Your task to perform on an android device: open app "The Home Depot" (install if not already installed) and go to login screen Image 0: 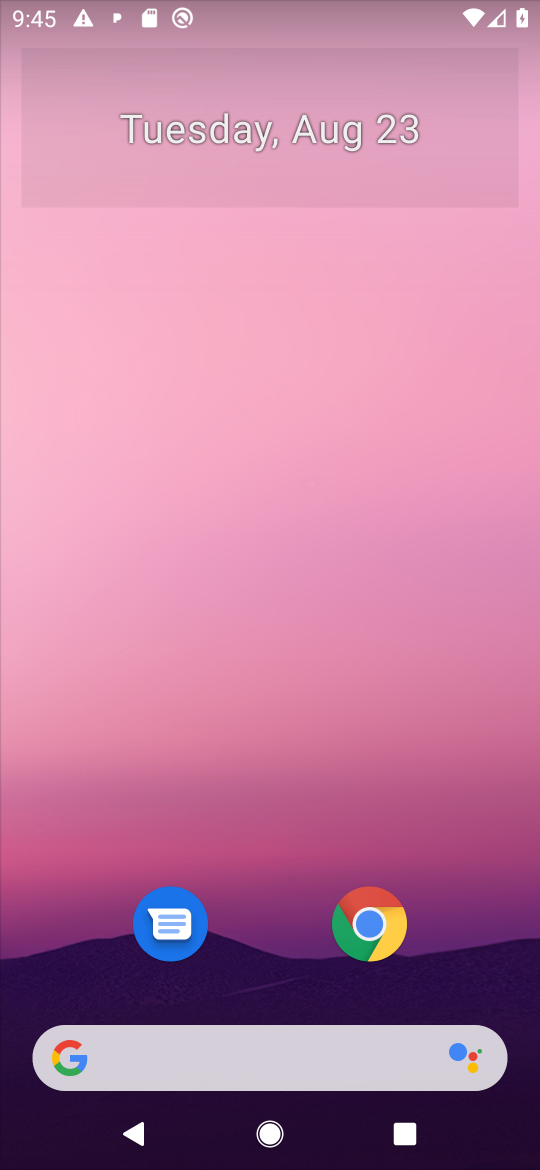
Step 0: press home button
Your task to perform on an android device: open app "The Home Depot" (install if not already installed) and go to login screen Image 1: 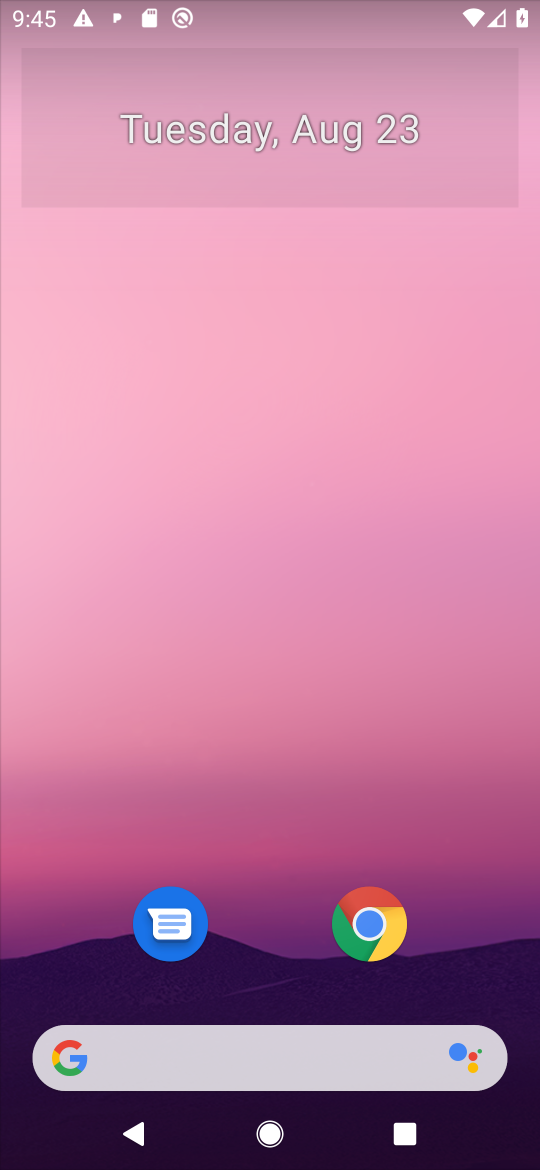
Step 1: drag from (465, 933) to (434, 172)
Your task to perform on an android device: open app "The Home Depot" (install if not already installed) and go to login screen Image 2: 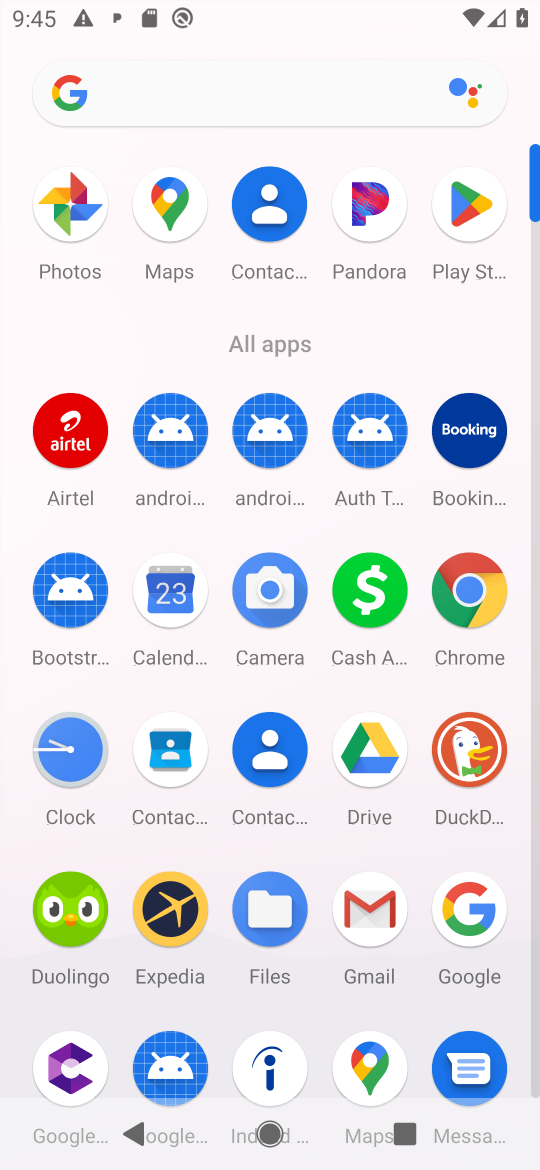
Step 2: click (474, 215)
Your task to perform on an android device: open app "The Home Depot" (install if not already installed) and go to login screen Image 3: 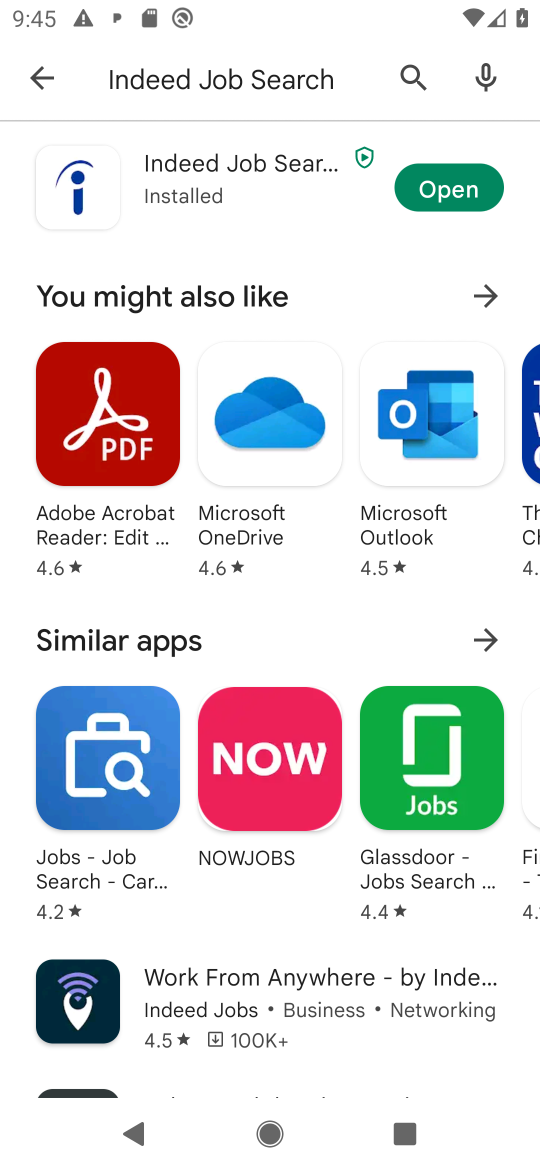
Step 3: press back button
Your task to perform on an android device: open app "The Home Depot" (install if not already installed) and go to login screen Image 4: 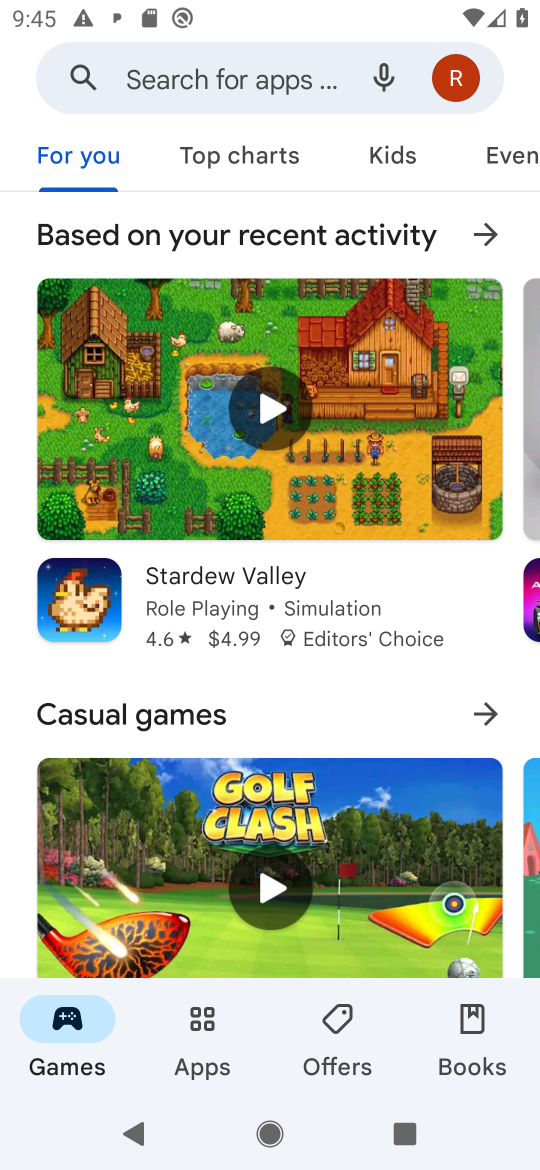
Step 4: click (221, 81)
Your task to perform on an android device: open app "The Home Depot" (install if not already installed) and go to login screen Image 5: 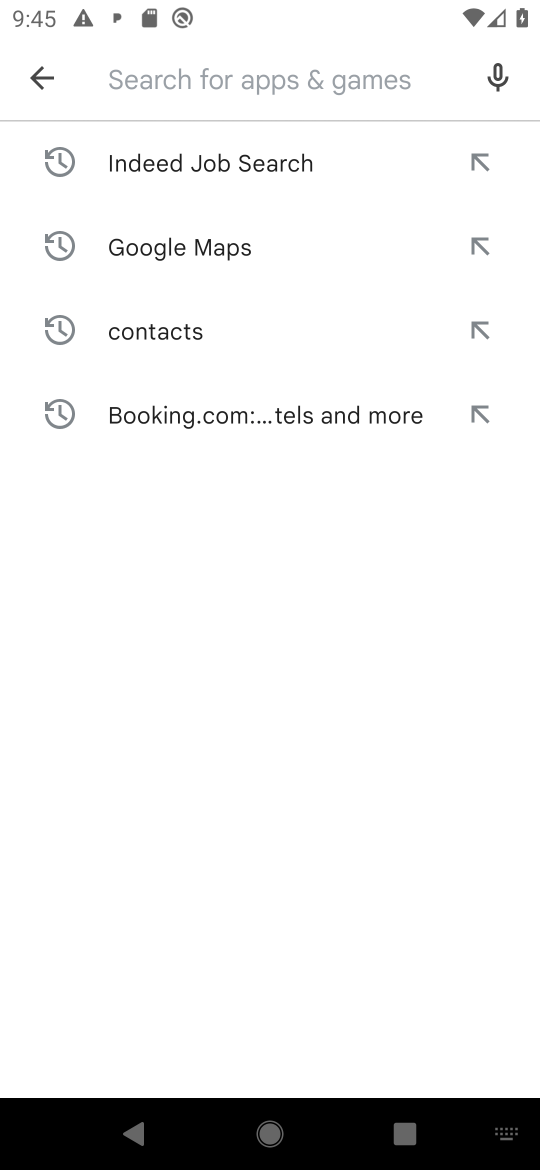
Step 5: press enter
Your task to perform on an android device: open app "The Home Depot" (install if not already installed) and go to login screen Image 6: 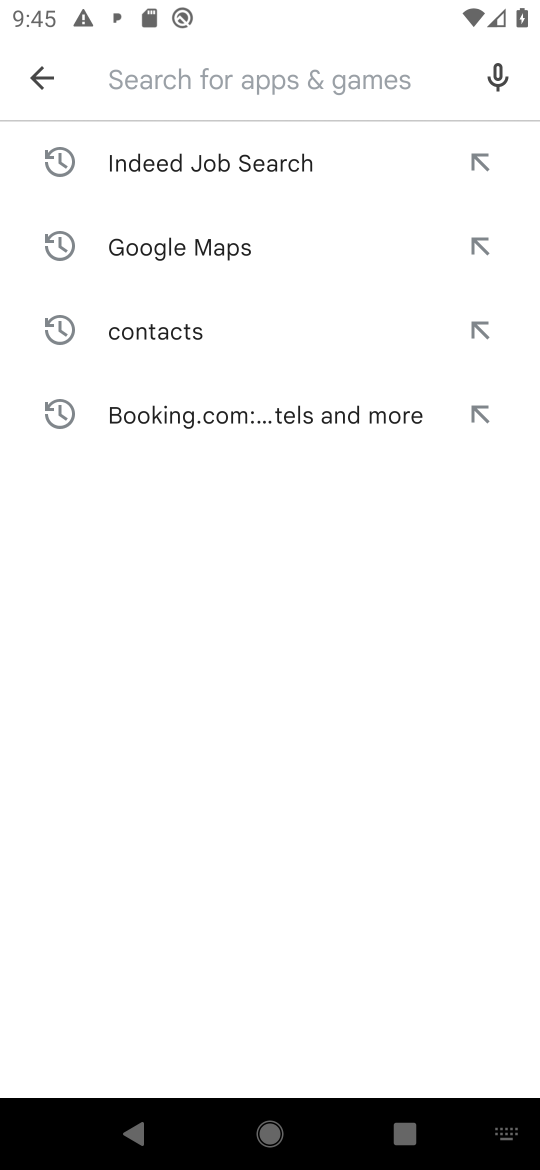
Step 6: type "The Home Depot"
Your task to perform on an android device: open app "The Home Depot" (install if not already installed) and go to login screen Image 7: 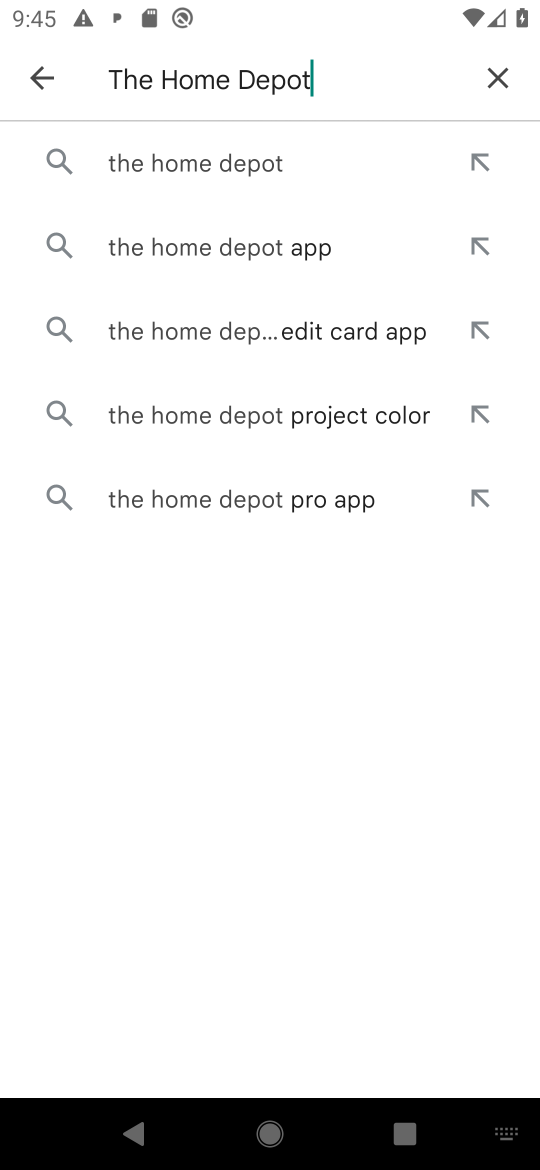
Step 7: click (223, 173)
Your task to perform on an android device: open app "The Home Depot" (install if not already installed) and go to login screen Image 8: 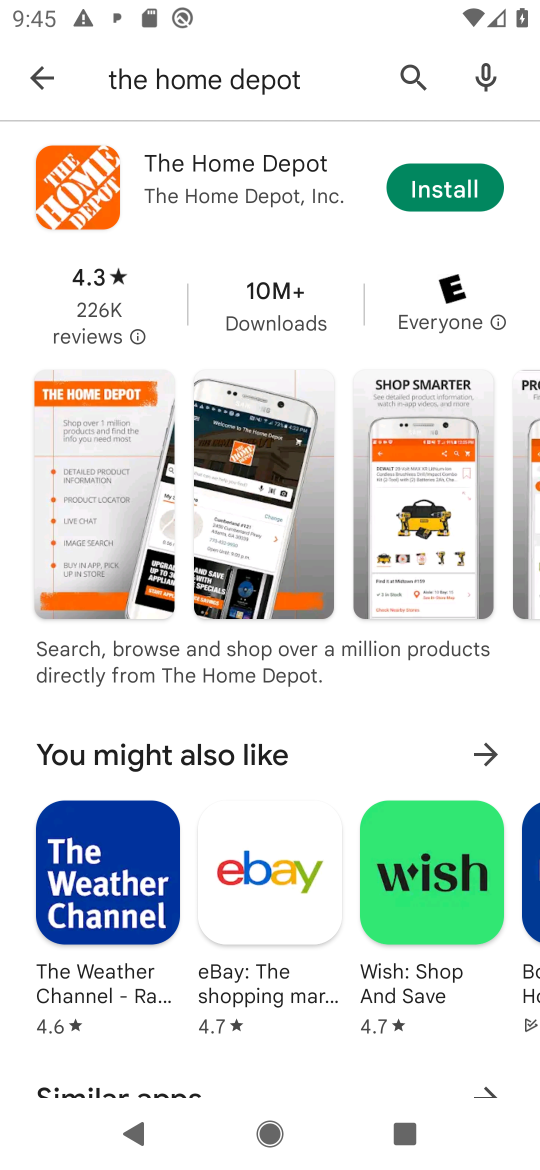
Step 8: click (429, 194)
Your task to perform on an android device: open app "The Home Depot" (install if not already installed) and go to login screen Image 9: 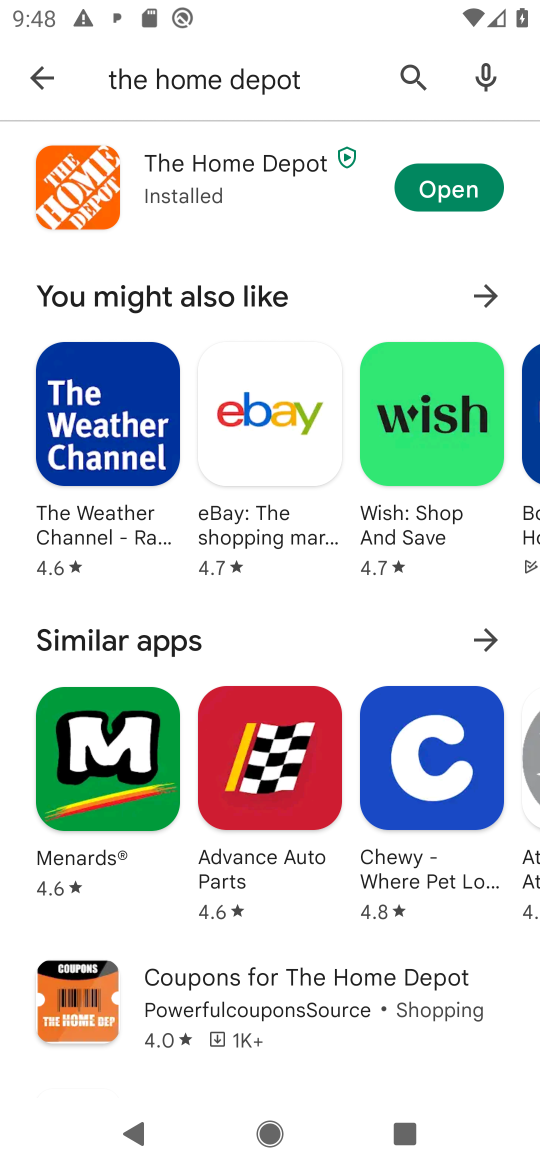
Step 9: click (479, 198)
Your task to perform on an android device: open app "The Home Depot" (install if not already installed) and go to login screen Image 10: 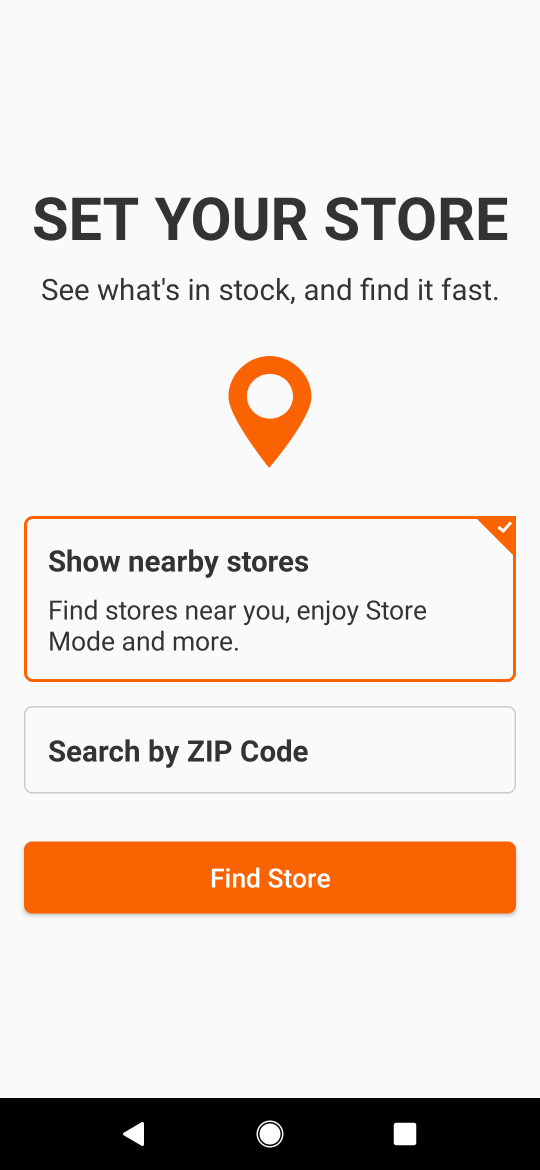
Step 10: task complete